Your task to perform on an android device: Go to sound settings Image 0: 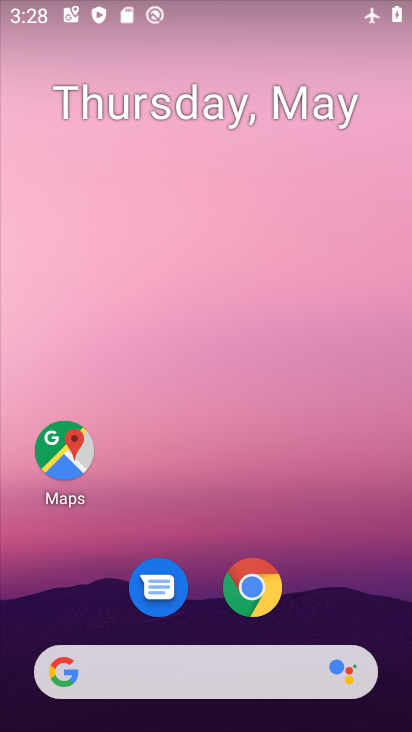
Step 0: drag from (243, 583) to (203, 174)
Your task to perform on an android device: Go to sound settings Image 1: 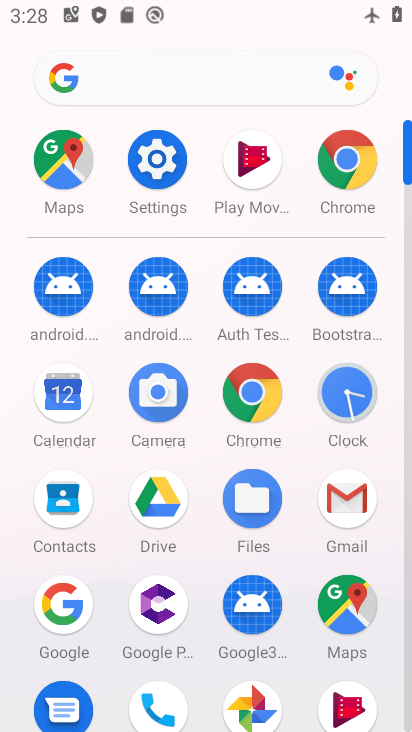
Step 1: click (159, 175)
Your task to perform on an android device: Go to sound settings Image 2: 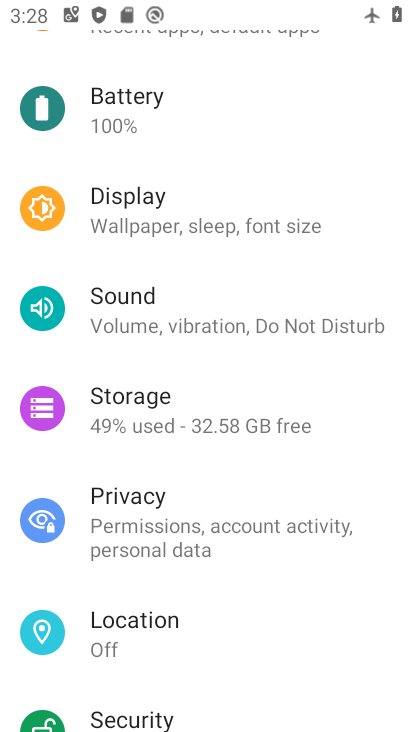
Step 2: drag from (217, 536) to (219, 277)
Your task to perform on an android device: Go to sound settings Image 3: 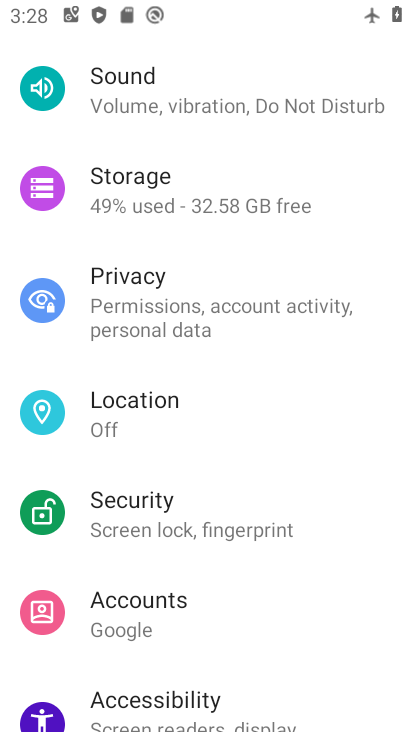
Step 3: drag from (201, 459) to (216, 244)
Your task to perform on an android device: Go to sound settings Image 4: 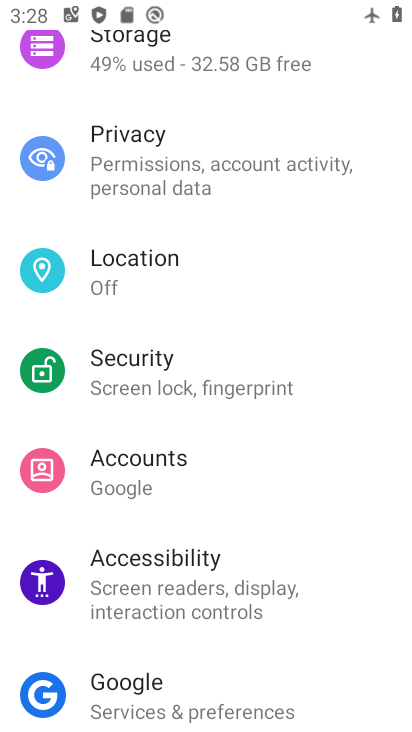
Step 4: drag from (184, 276) to (184, 469)
Your task to perform on an android device: Go to sound settings Image 5: 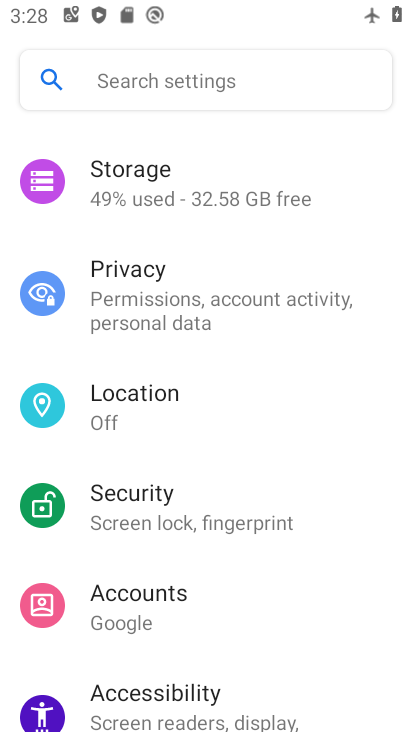
Step 5: drag from (158, 269) to (159, 521)
Your task to perform on an android device: Go to sound settings Image 6: 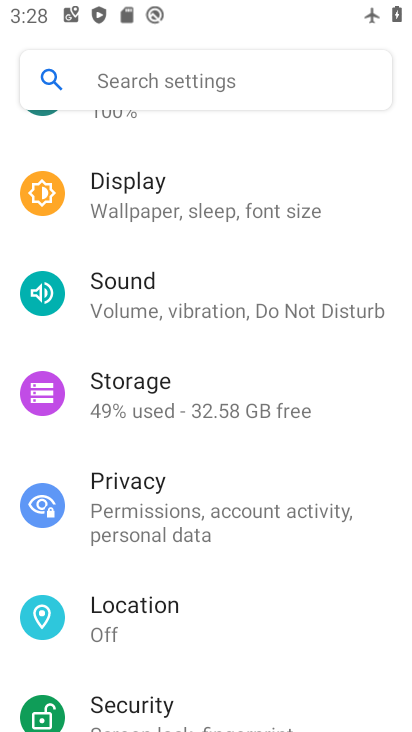
Step 6: drag from (192, 284) to (187, 470)
Your task to perform on an android device: Go to sound settings Image 7: 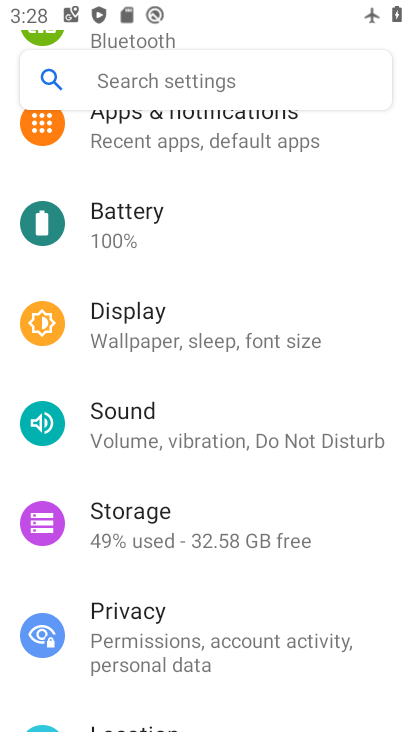
Step 7: click (180, 429)
Your task to perform on an android device: Go to sound settings Image 8: 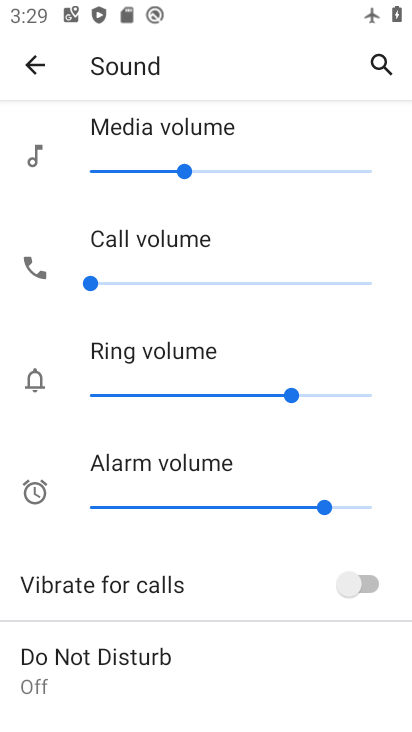
Step 8: task complete